Your task to perform on an android device: set the stopwatch Image 0: 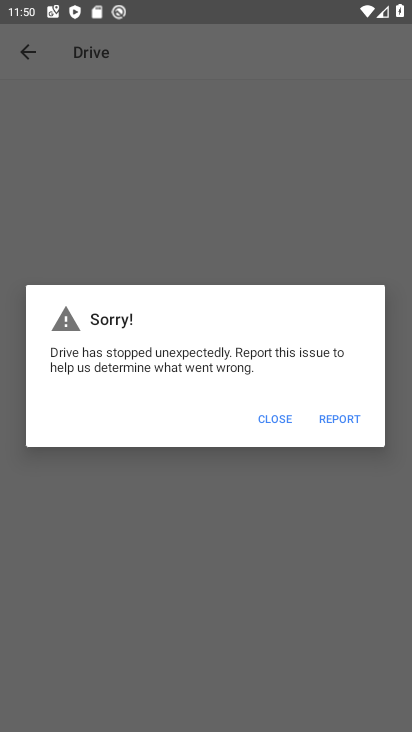
Step 0: press home button
Your task to perform on an android device: set the stopwatch Image 1: 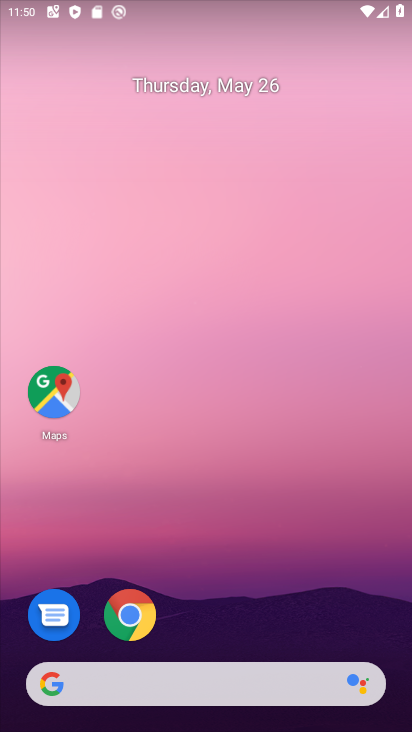
Step 1: drag from (246, 622) to (166, 170)
Your task to perform on an android device: set the stopwatch Image 2: 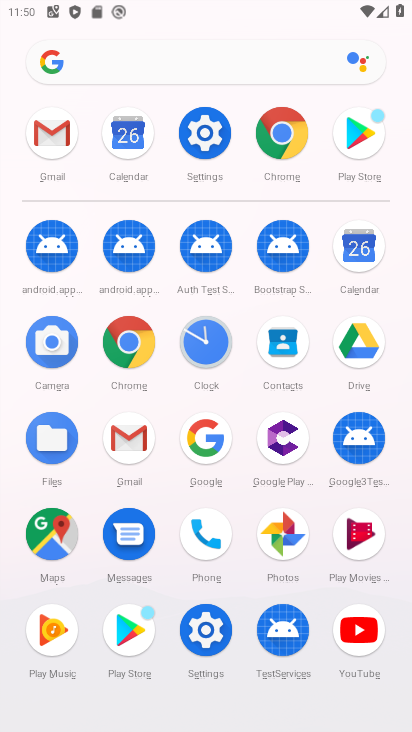
Step 2: click (217, 351)
Your task to perform on an android device: set the stopwatch Image 3: 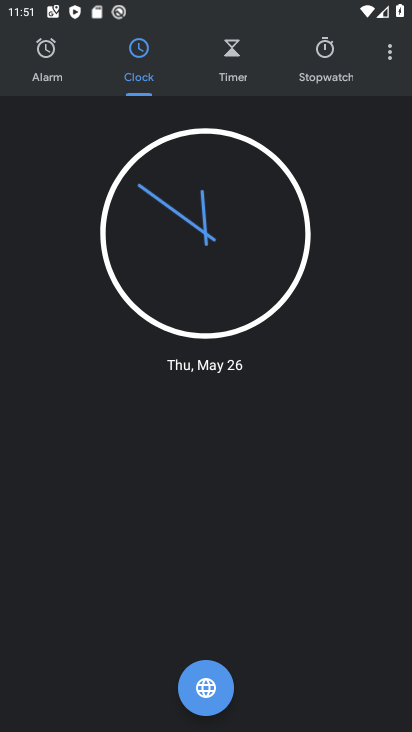
Step 3: click (315, 80)
Your task to perform on an android device: set the stopwatch Image 4: 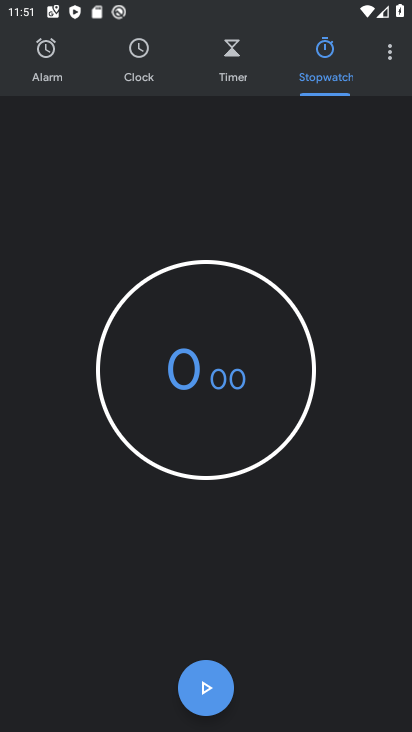
Step 4: click (199, 684)
Your task to perform on an android device: set the stopwatch Image 5: 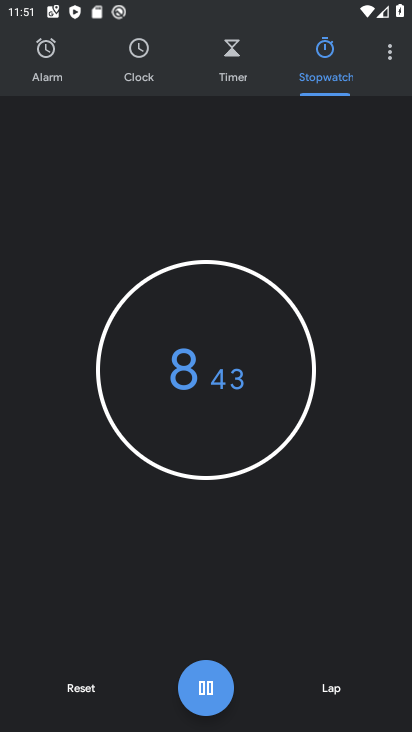
Step 5: task complete